Your task to perform on an android device: Show me popular videos on Youtube Image 0: 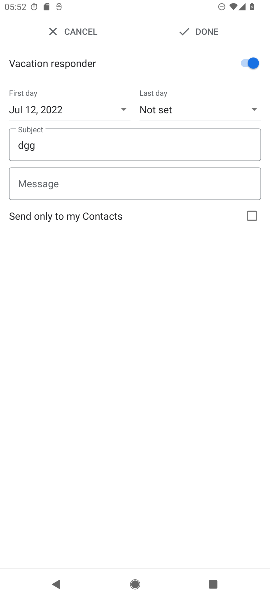
Step 0: press home button
Your task to perform on an android device: Show me popular videos on Youtube Image 1: 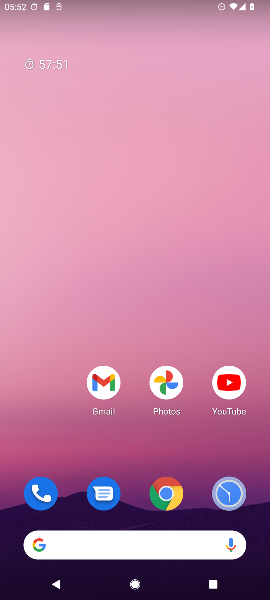
Step 1: drag from (66, 439) to (100, 103)
Your task to perform on an android device: Show me popular videos on Youtube Image 2: 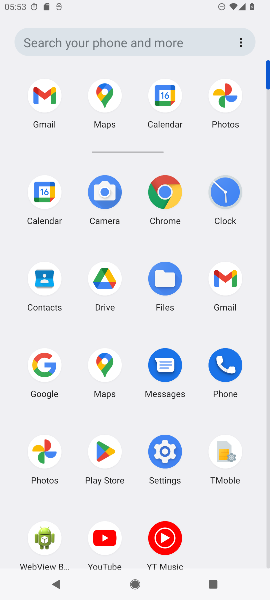
Step 2: click (102, 543)
Your task to perform on an android device: Show me popular videos on Youtube Image 3: 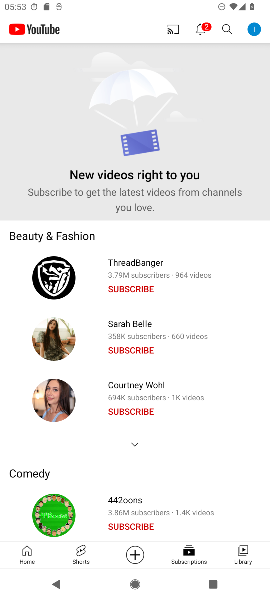
Step 3: click (192, 548)
Your task to perform on an android device: Show me popular videos on Youtube Image 4: 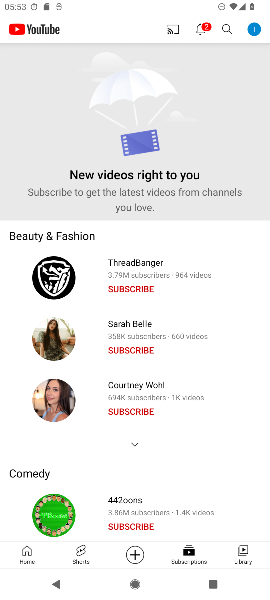
Step 4: task complete